Your task to perform on an android device: Open Google Maps and go to "Timeline" Image 0: 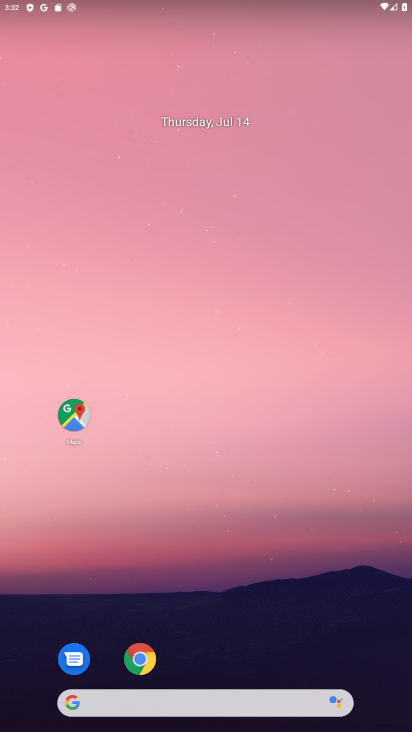
Step 0: drag from (294, 566) to (337, 139)
Your task to perform on an android device: Open Google Maps and go to "Timeline" Image 1: 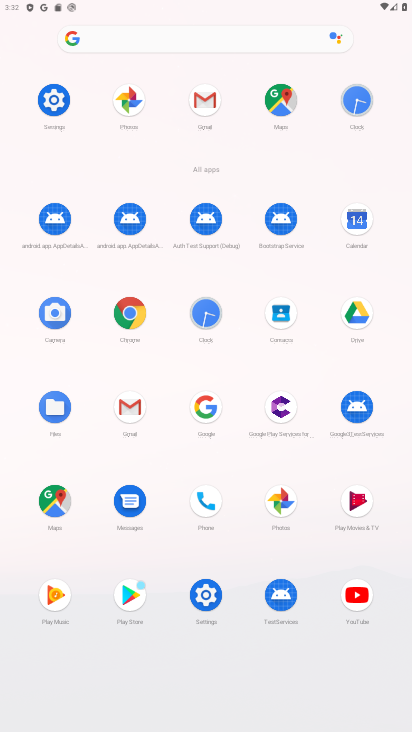
Step 1: click (60, 502)
Your task to perform on an android device: Open Google Maps and go to "Timeline" Image 2: 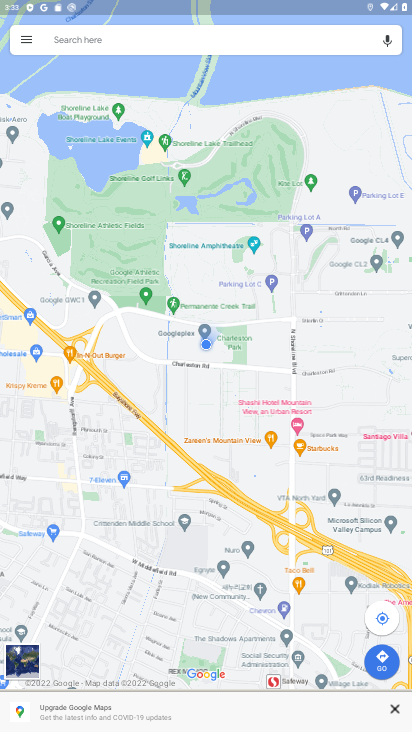
Step 2: click (25, 40)
Your task to perform on an android device: Open Google Maps and go to "Timeline" Image 3: 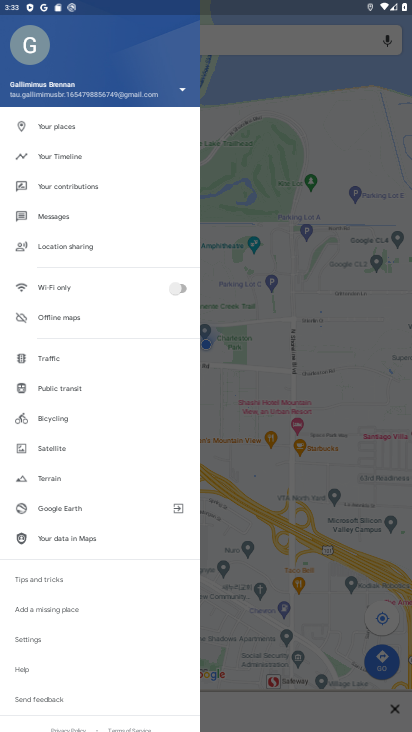
Step 3: drag from (118, 446) to (118, 363)
Your task to perform on an android device: Open Google Maps and go to "Timeline" Image 4: 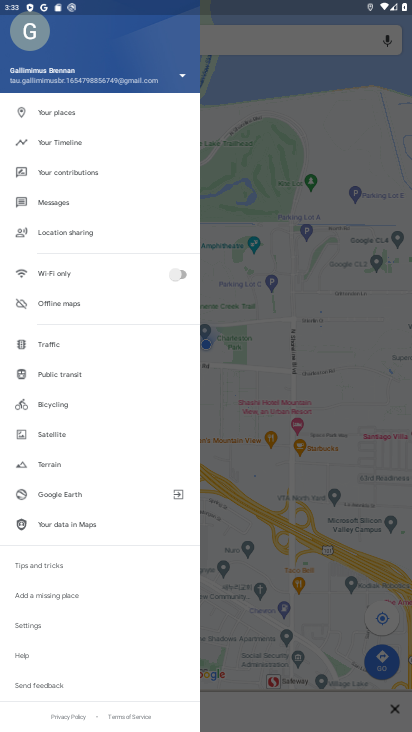
Step 4: click (93, 148)
Your task to perform on an android device: Open Google Maps and go to "Timeline" Image 5: 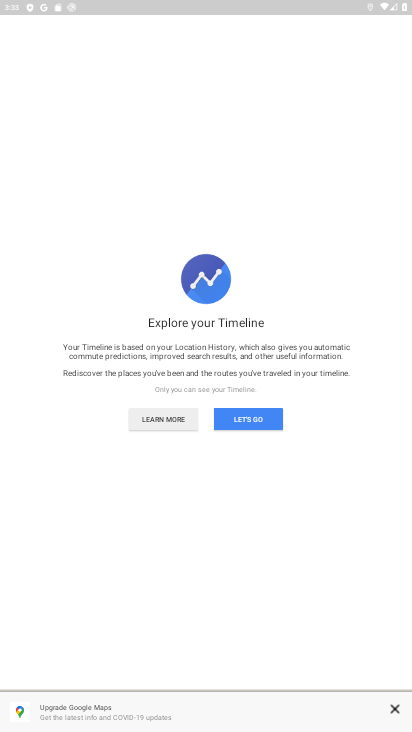
Step 5: task complete